Your task to perform on an android device: Open eBay Image 0: 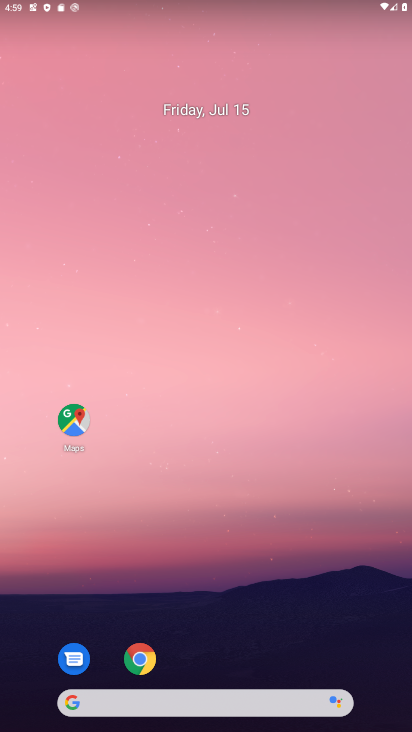
Step 0: drag from (247, 446) to (266, 7)
Your task to perform on an android device: Open eBay Image 1: 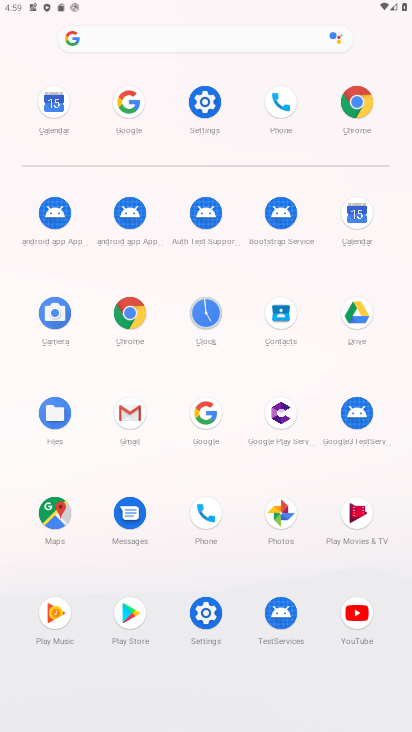
Step 1: click (370, 89)
Your task to perform on an android device: Open eBay Image 2: 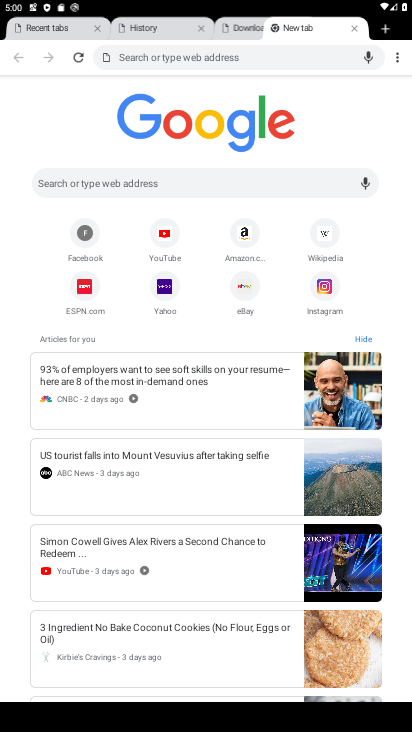
Step 2: click (243, 284)
Your task to perform on an android device: Open eBay Image 3: 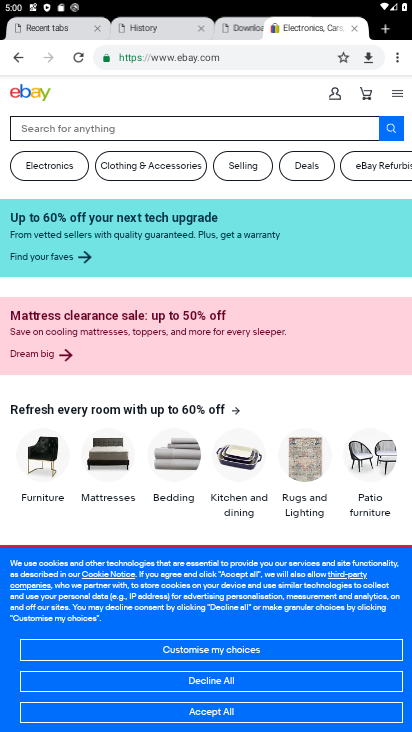
Step 3: task complete